Your task to perform on an android device: change your default location settings in chrome Image 0: 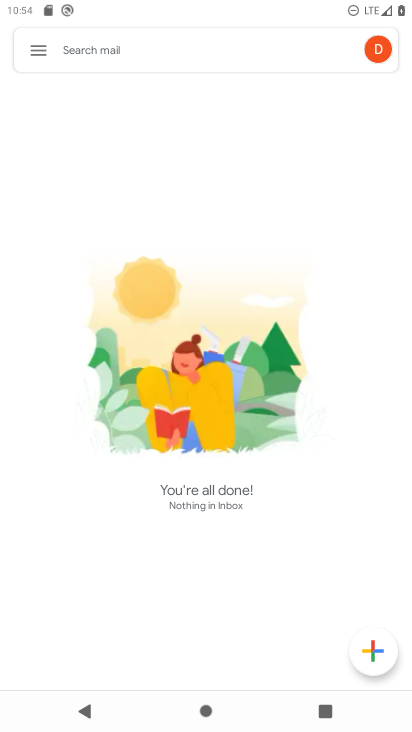
Step 0: press home button
Your task to perform on an android device: change your default location settings in chrome Image 1: 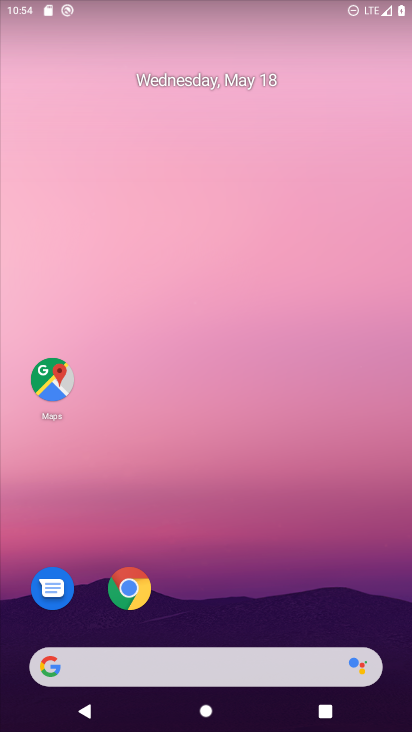
Step 1: click (124, 587)
Your task to perform on an android device: change your default location settings in chrome Image 2: 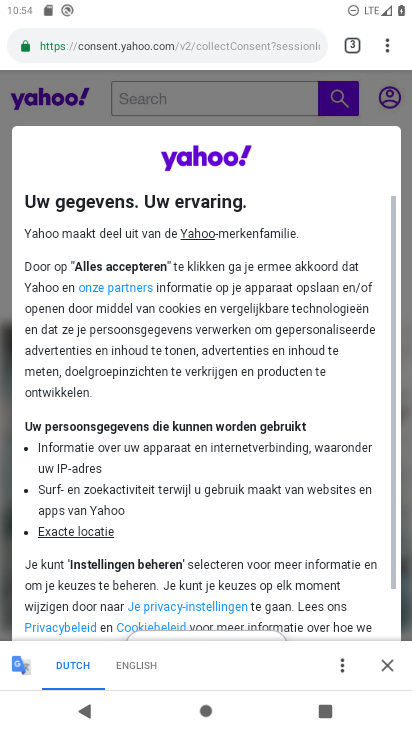
Step 2: click (389, 44)
Your task to perform on an android device: change your default location settings in chrome Image 3: 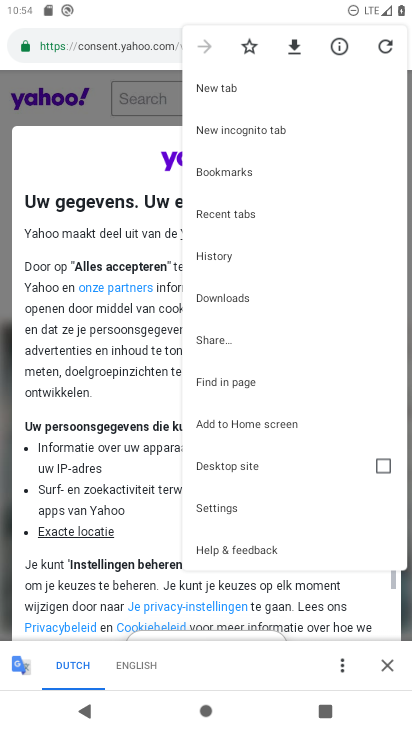
Step 3: click (215, 506)
Your task to perform on an android device: change your default location settings in chrome Image 4: 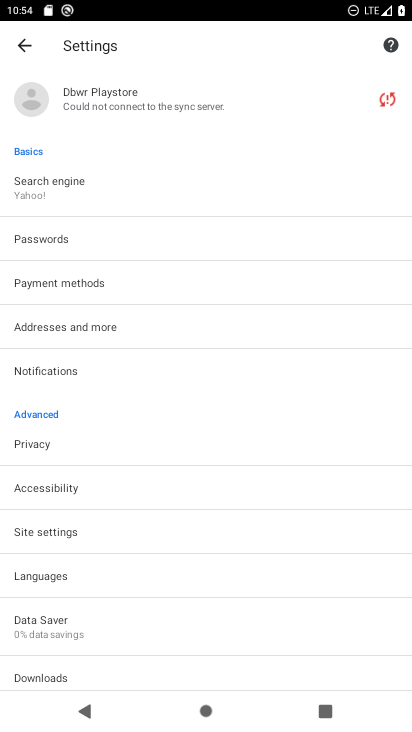
Step 4: click (51, 529)
Your task to perform on an android device: change your default location settings in chrome Image 5: 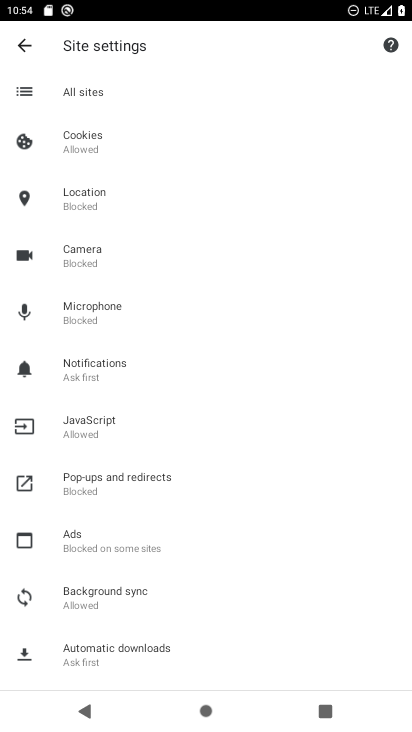
Step 5: click (74, 190)
Your task to perform on an android device: change your default location settings in chrome Image 6: 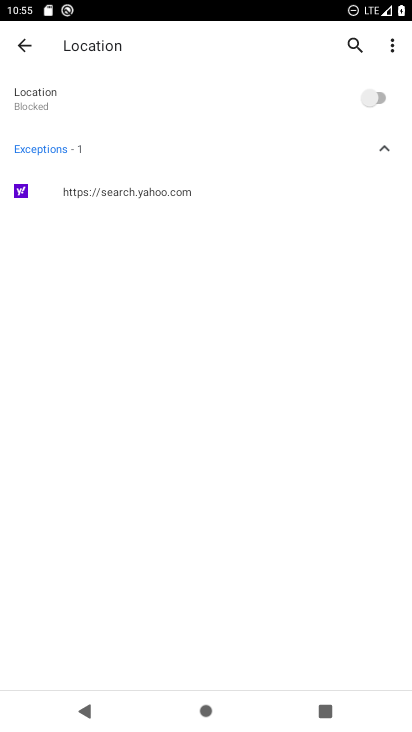
Step 6: click (365, 100)
Your task to perform on an android device: change your default location settings in chrome Image 7: 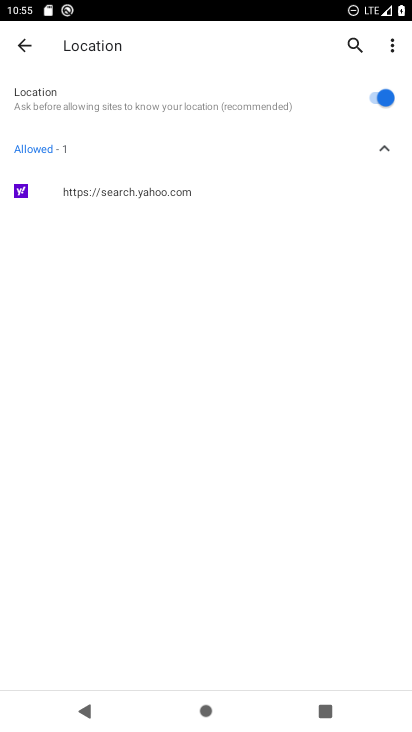
Step 7: task complete